Your task to perform on an android device: Go to sound settings Image 0: 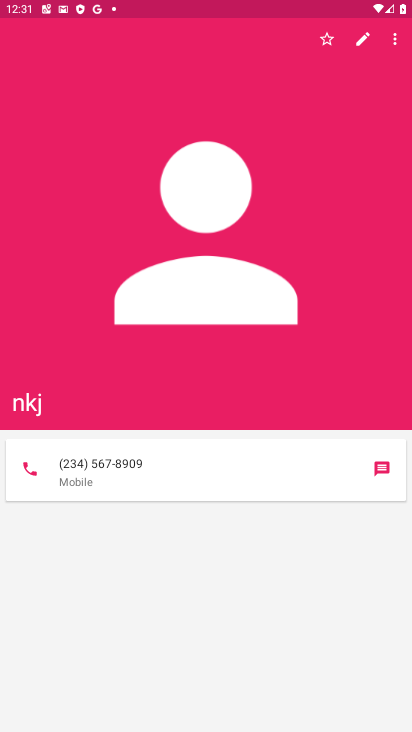
Step 0: press home button
Your task to perform on an android device: Go to sound settings Image 1: 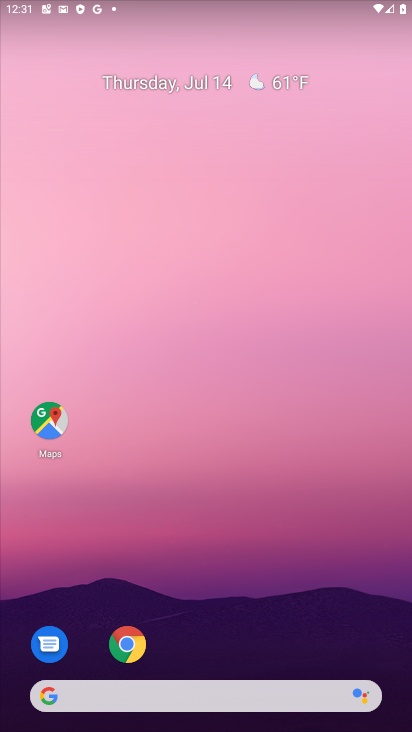
Step 1: drag from (263, 626) to (311, 53)
Your task to perform on an android device: Go to sound settings Image 2: 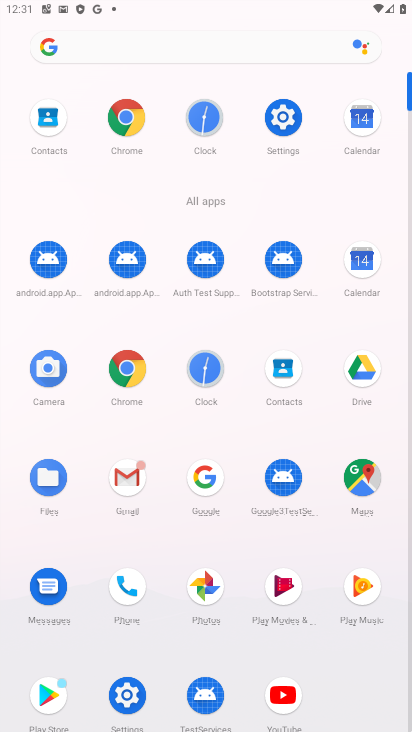
Step 2: click (273, 113)
Your task to perform on an android device: Go to sound settings Image 3: 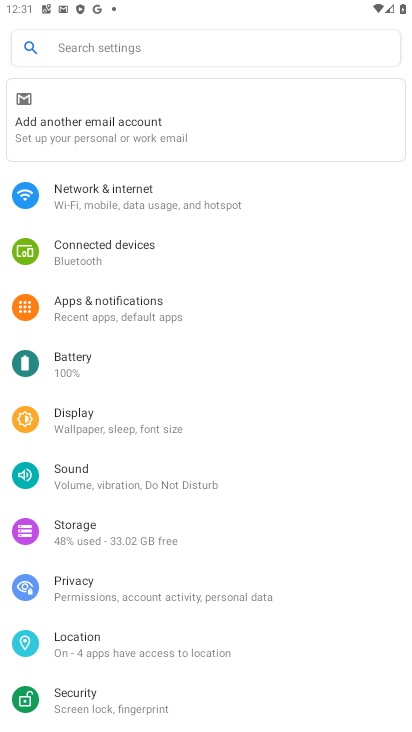
Step 3: click (70, 474)
Your task to perform on an android device: Go to sound settings Image 4: 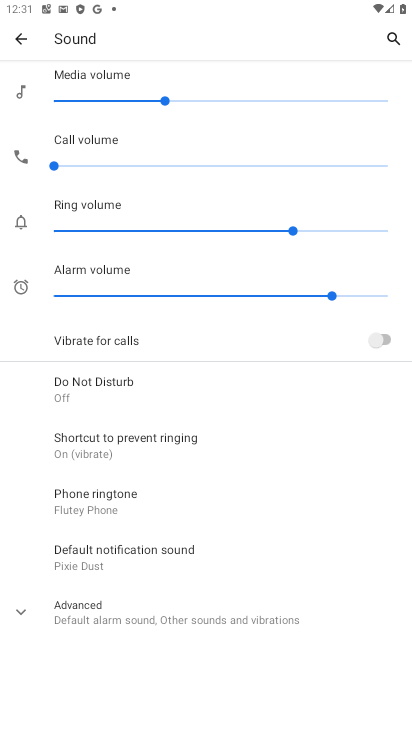
Step 4: task complete